Your task to perform on an android device: Go to display settings Image 0: 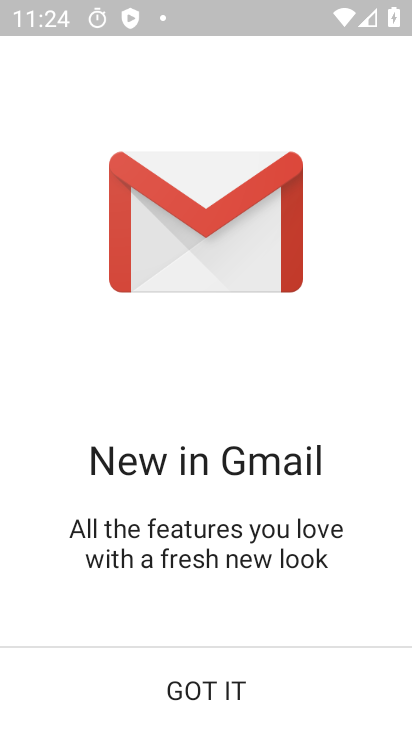
Step 0: press back button
Your task to perform on an android device: Go to display settings Image 1: 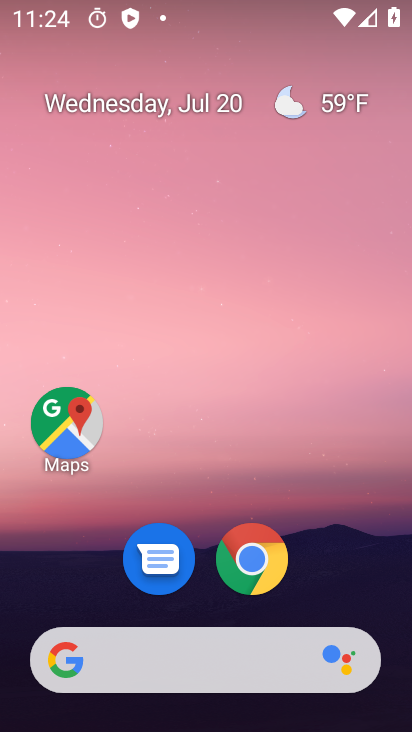
Step 1: drag from (81, 582) to (247, 10)
Your task to perform on an android device: Go to display settings Image 2: 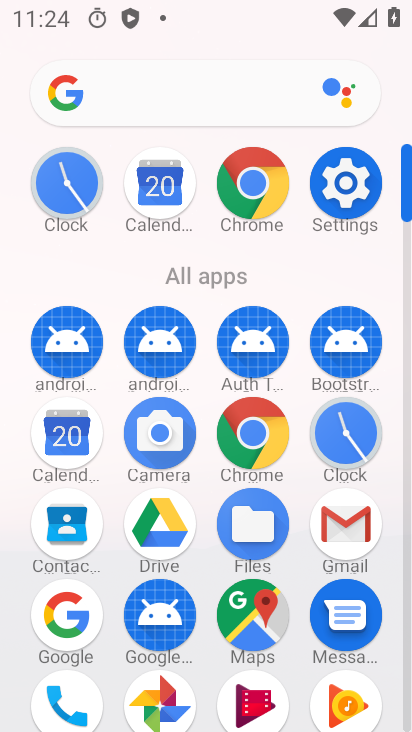
Step 2: click (343, 171)
Your task to perform on an android device: Go to display settings Image 3: 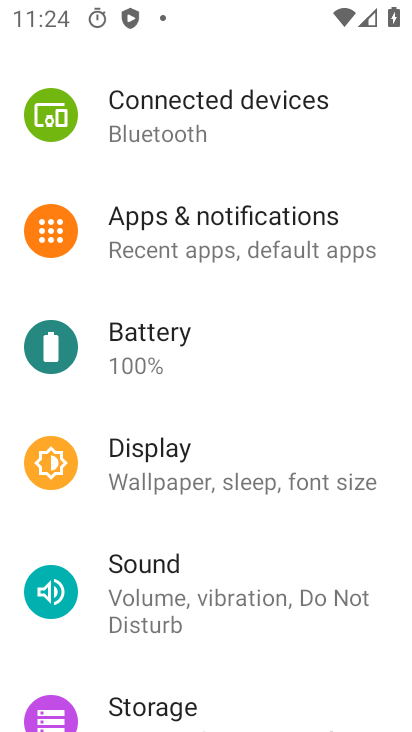
Step 3: click (159, 457)
Your task to perform on an android device: Go to display settings Image 4: 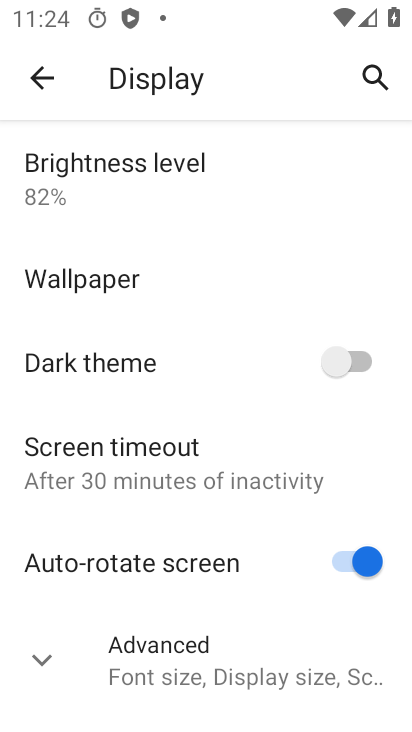
Step 4: task complete